Your task to perform on an android device: check data usage Image 0: 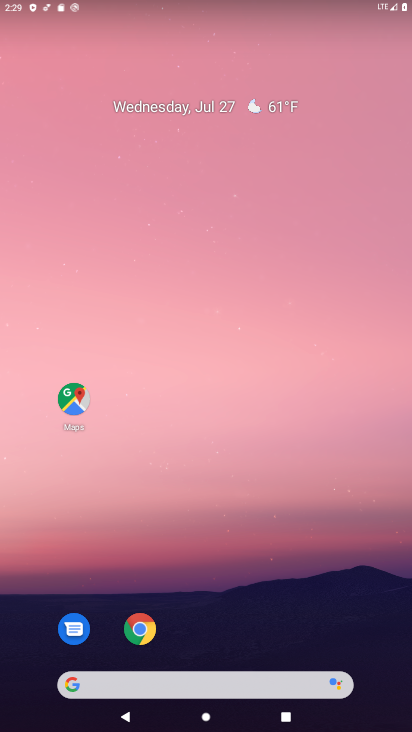
Step 0: drag from (179, 685) to (242, 140)
Your task to perform on an android device: check data usage Image 1: 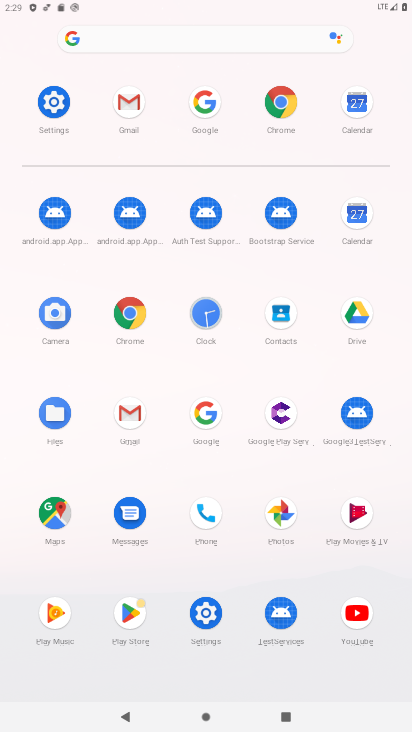
Step 1: click (206, 612)
Your task to perform on an android device: check data usage Image 2: 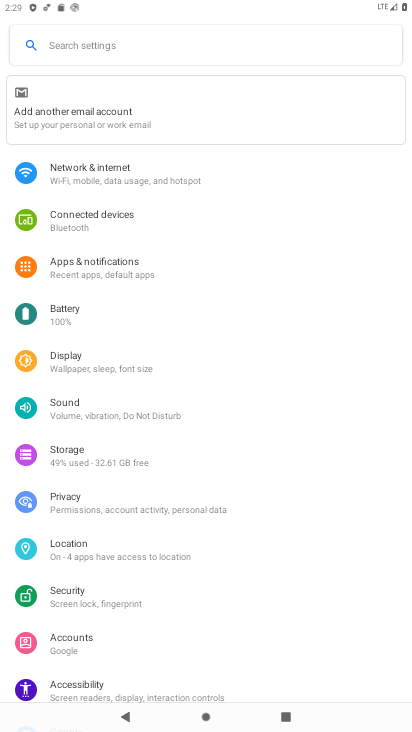
Step 2: click (105, 172)
Your task to perform on an android device: check data usage Image 3: 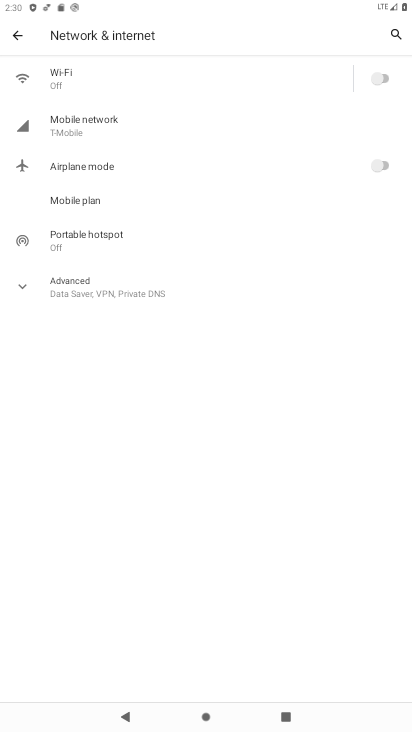
Step 3: click (82, 134)
Your task to perform on an android device: check data usage Image 4: 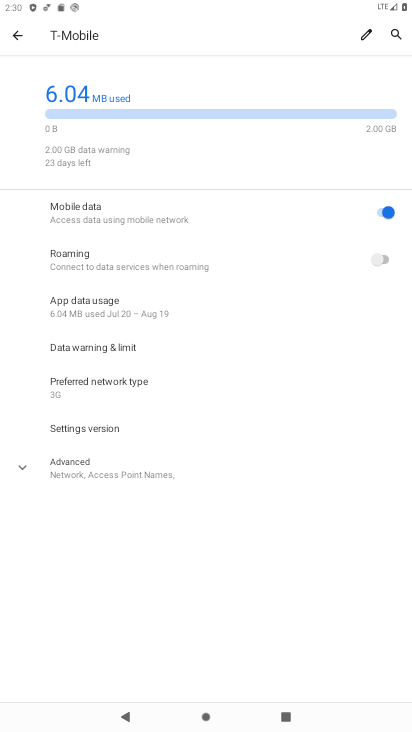
Step 4: task complete